Your task to perform on an android device: turn off notifications settings in the gmail app Image 0: 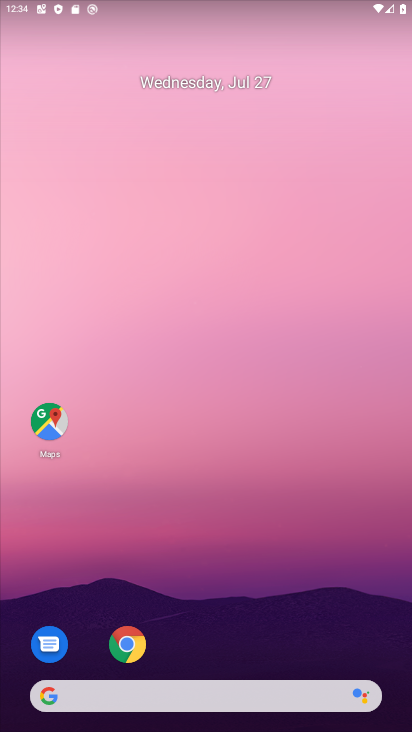
Step 0: drag from (194, 574) to (201, 162)
Your task to perform on an android device: turn off notifications settings in the gmail app Image 1: 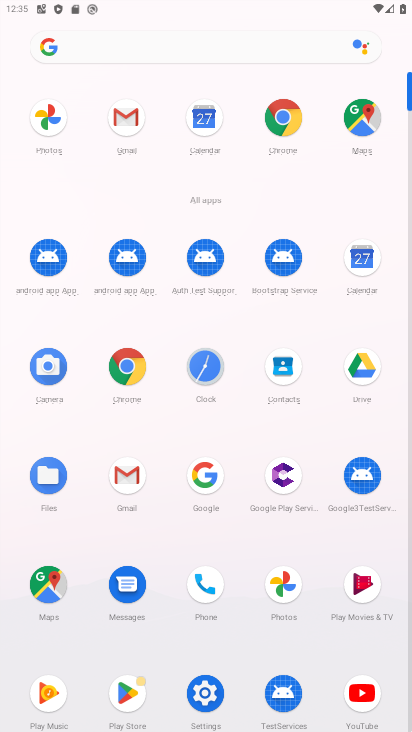
Step 1: click (122, 485)
Your task to perform on an android device: turn off notifications settings in the gmail app Image 2: 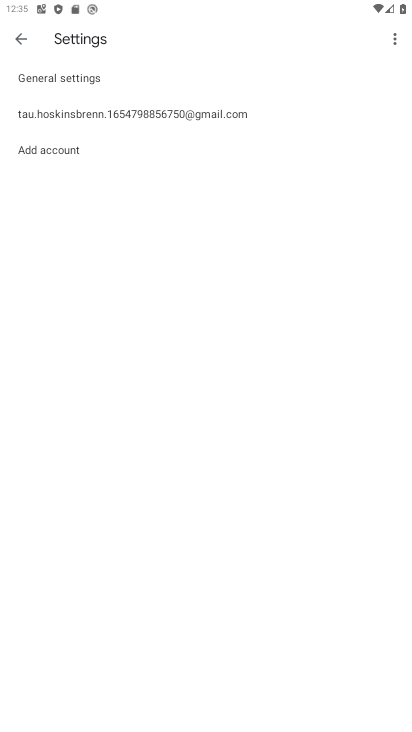
Step 2: press home button
Your task to perform on an android device: turn off notifications settings in the gmail app Image 3: 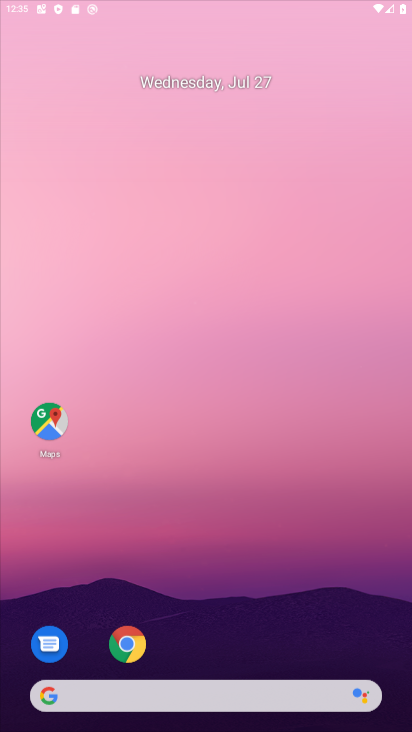
Step 3: drag from (70, 653) to (69, 429)
Your task to perform on an android device: turn off notifications settings in the gmail app Image 4: 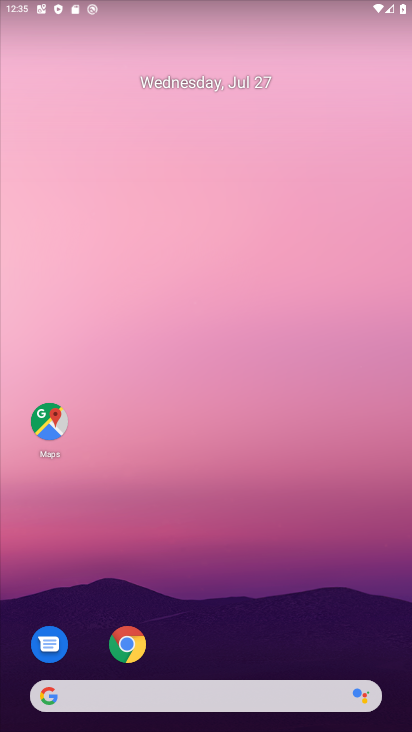
Step 4: drag from (180, 615) to (186, 156)
Your task to perform on an android device: turn off notifications settings in the gmail app Image 5: 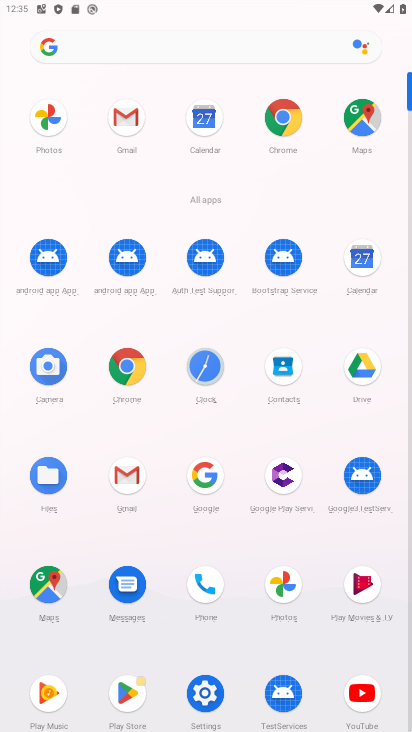
Step 5: click (139, 489)
Your task to perform on an android device: turn off notifications settings in the gmail app Image 6: 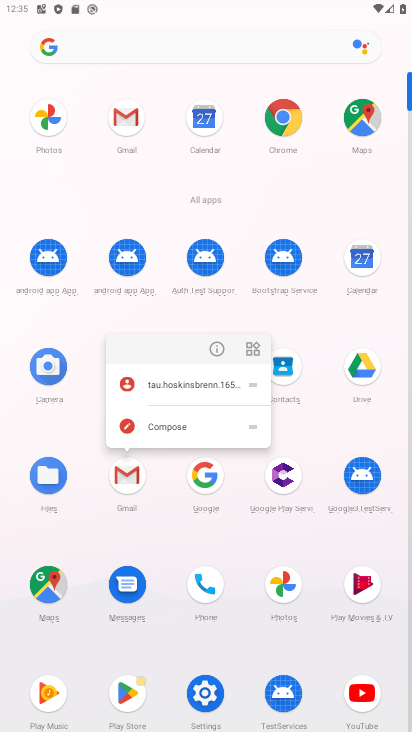
Step 6: click (215, 342)
Your task to perform on an android device: turn off notifications settings in the gmail app Image 7: 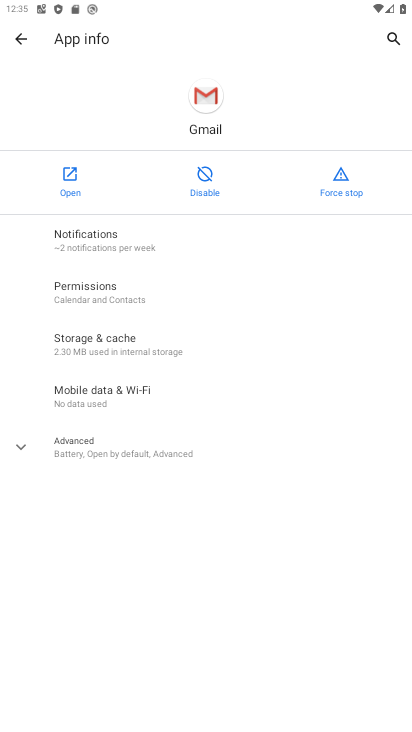
Step 7: click (121, 248)
Your task to perform on an android device: turn off notifications settings in the gmail app Image 8: 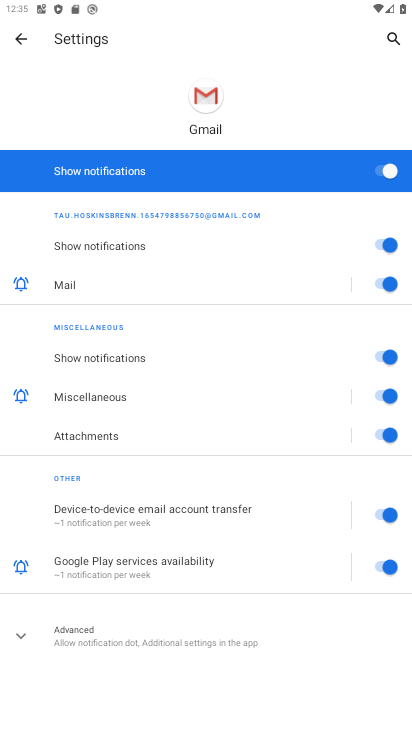
Step 8: click (253, 181)
Your task to perform on an android device: turn off notifications settings in the gmail app Image 9: 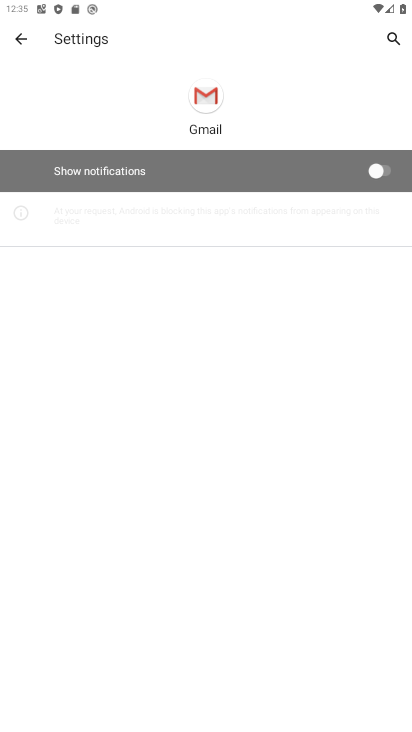
Step 9: task complete